Your task to perform on an android device: What's on my calendar today? Image 0: 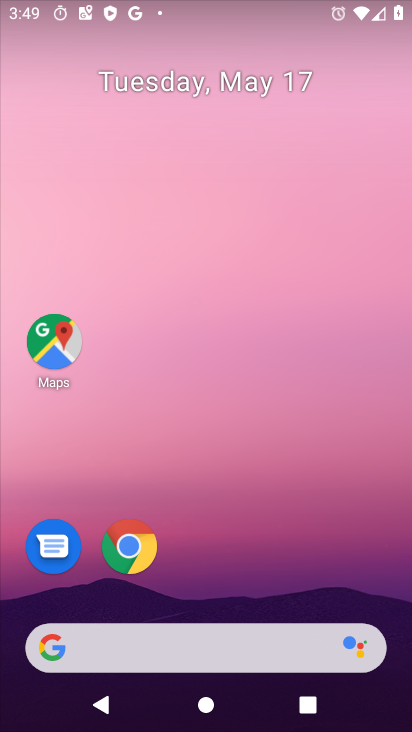
Step 0: drag from (391, 670) to (370, 314)
Your task to perform on an android device: What's on my calendar today? Image 1: 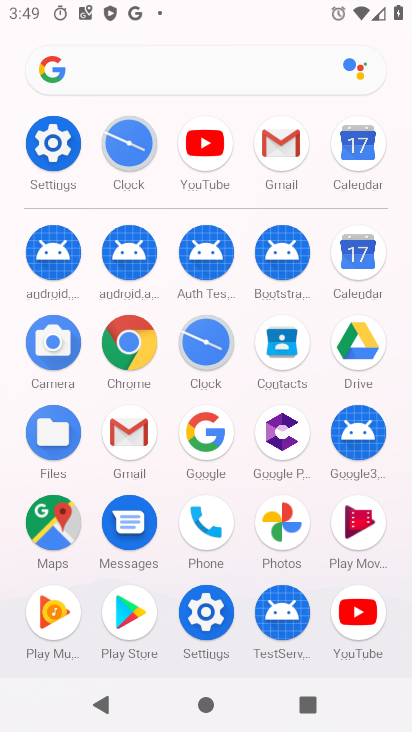
Step 1: click (362, 262)
Your task to perform on an android device: What's on my calendar today? Image 2: 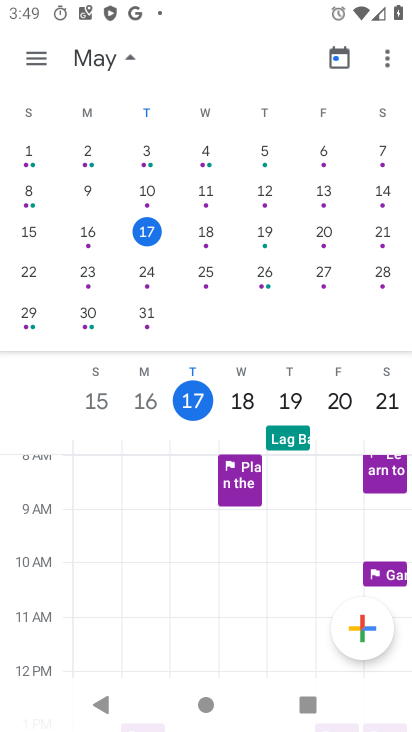
Step 2: click (154, 233)
Your task to perform on an android device: What's on my calendar today? Image 3: 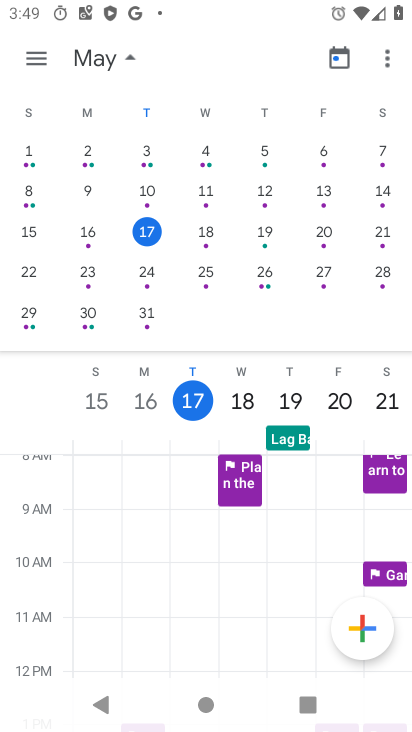
Step 3: click (140, 225)
Your task to perform on an android device: What's on my calendar today? Image 4: 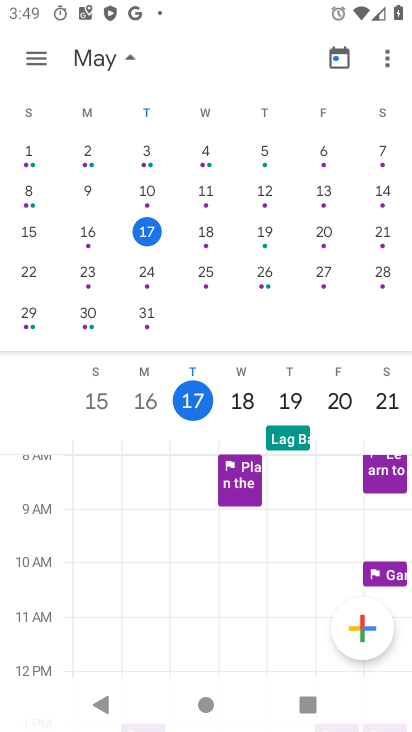
Step 4: task complete